Your task to perform on an android device: toggle javascript in the chrome app Image 0: 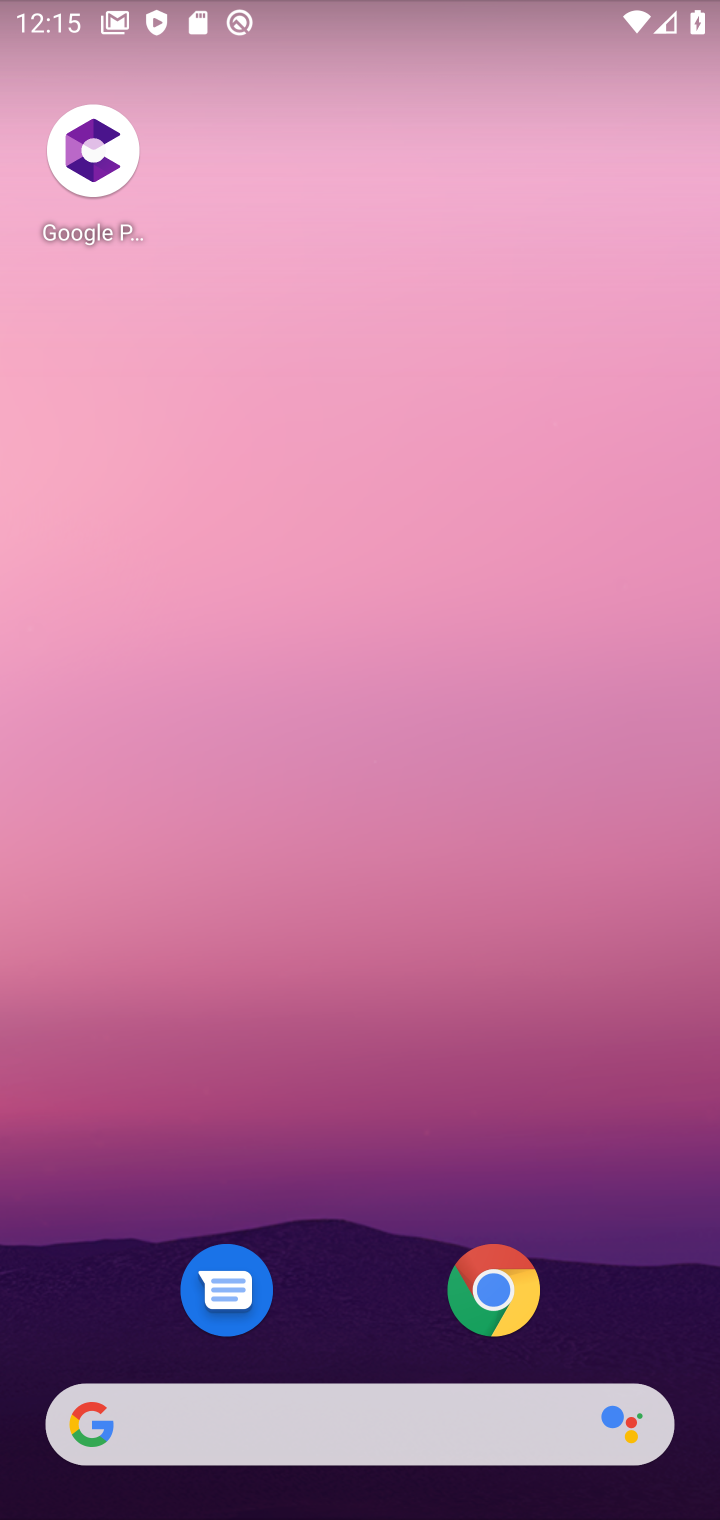
Step 0: click (501, 1280)
Your task to perform on an android device: toggle javascript in the chrome app Image 1: 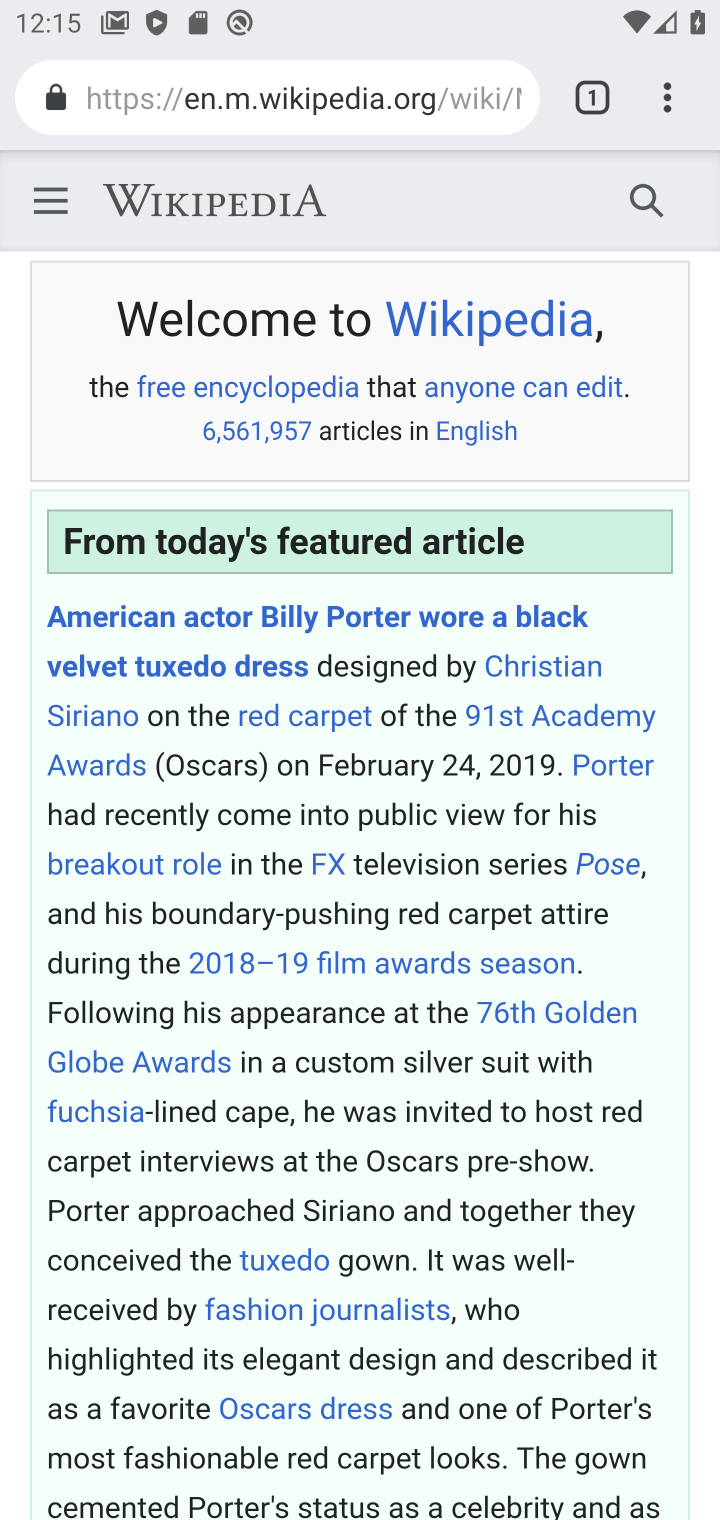
Step 1: click (683, 78)
Your task to perform on an android device: toggle javascript in the chrome app Image 2: 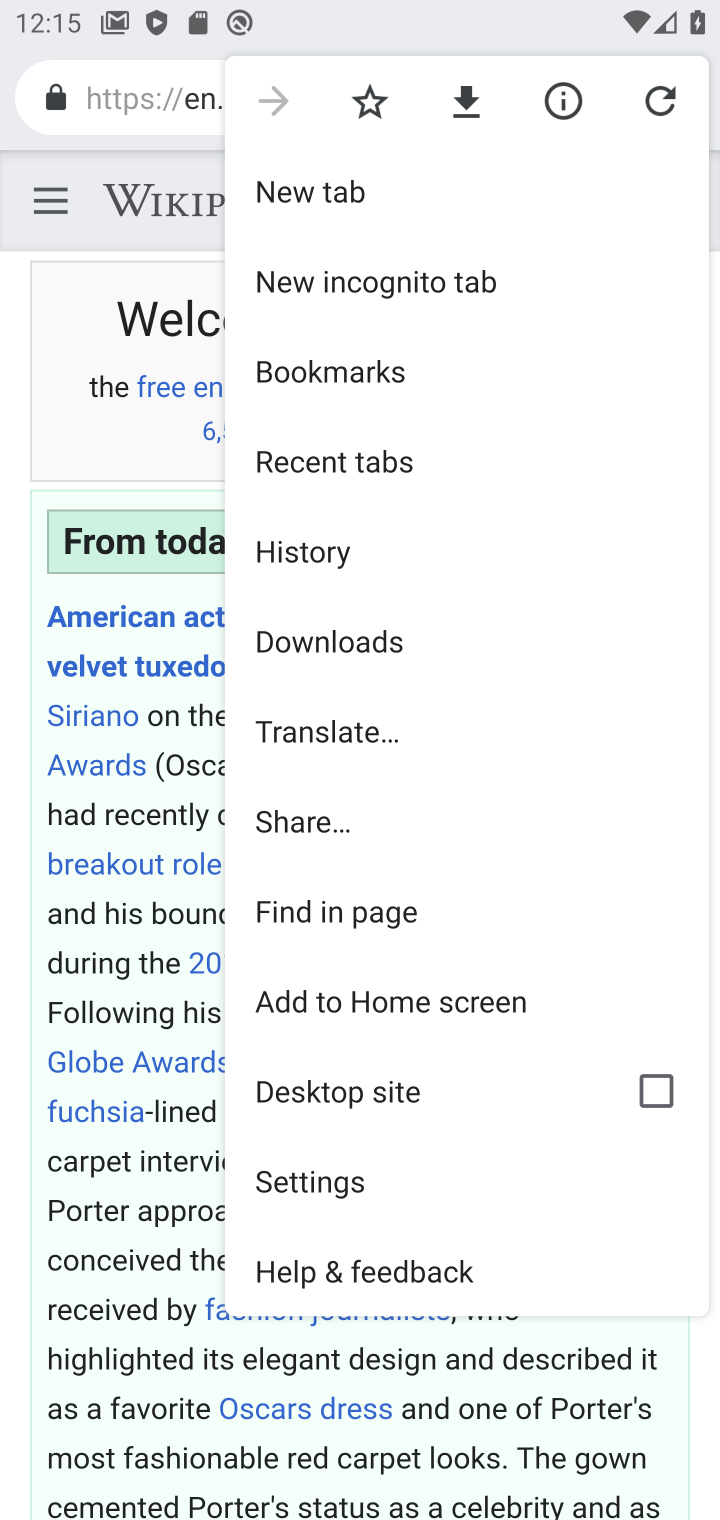
Step 2: click (318, 1175)
Your task to perform on an android device: toggle javascript in the chrome app Image 3: 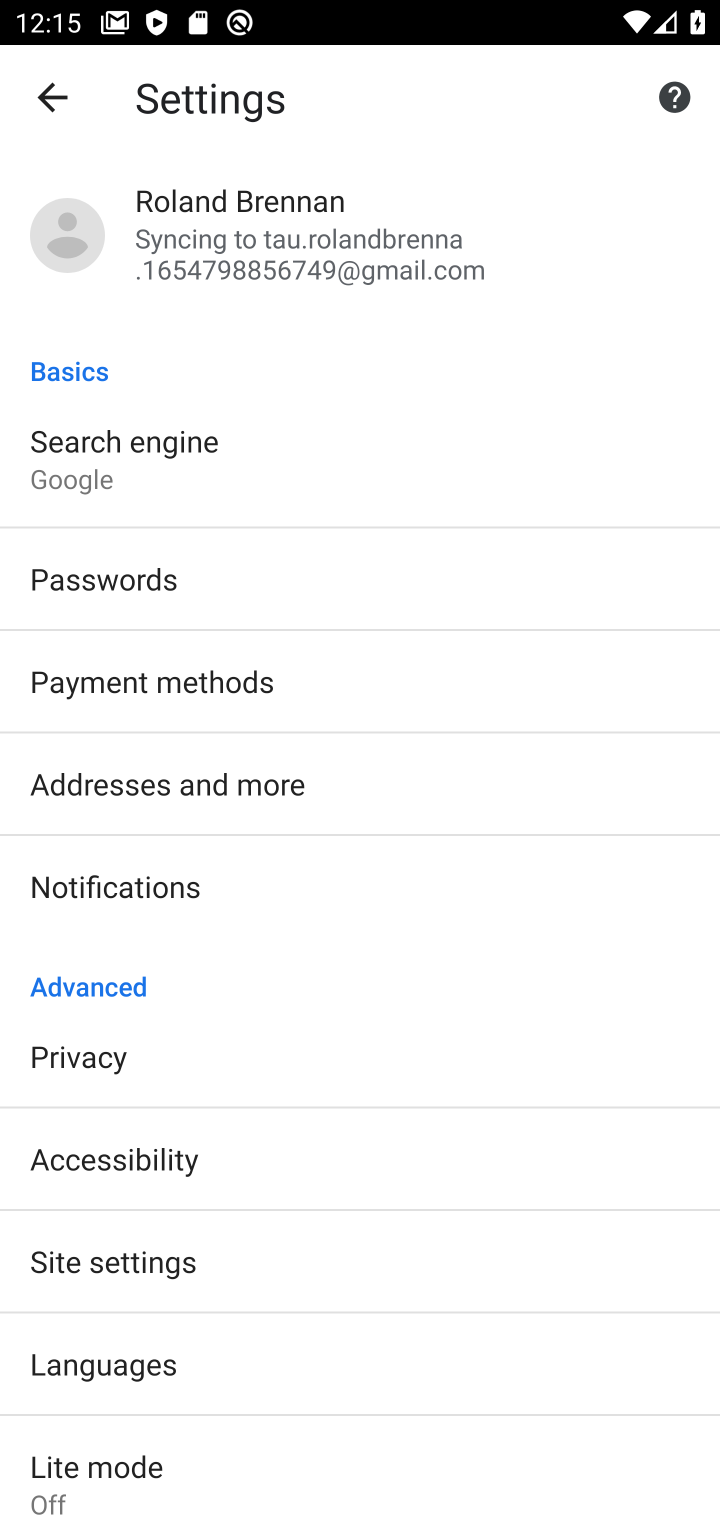
Step 3: click (301, 1238)
Your task to perform on an android device: toggle javascript in the chrome app Image 4: 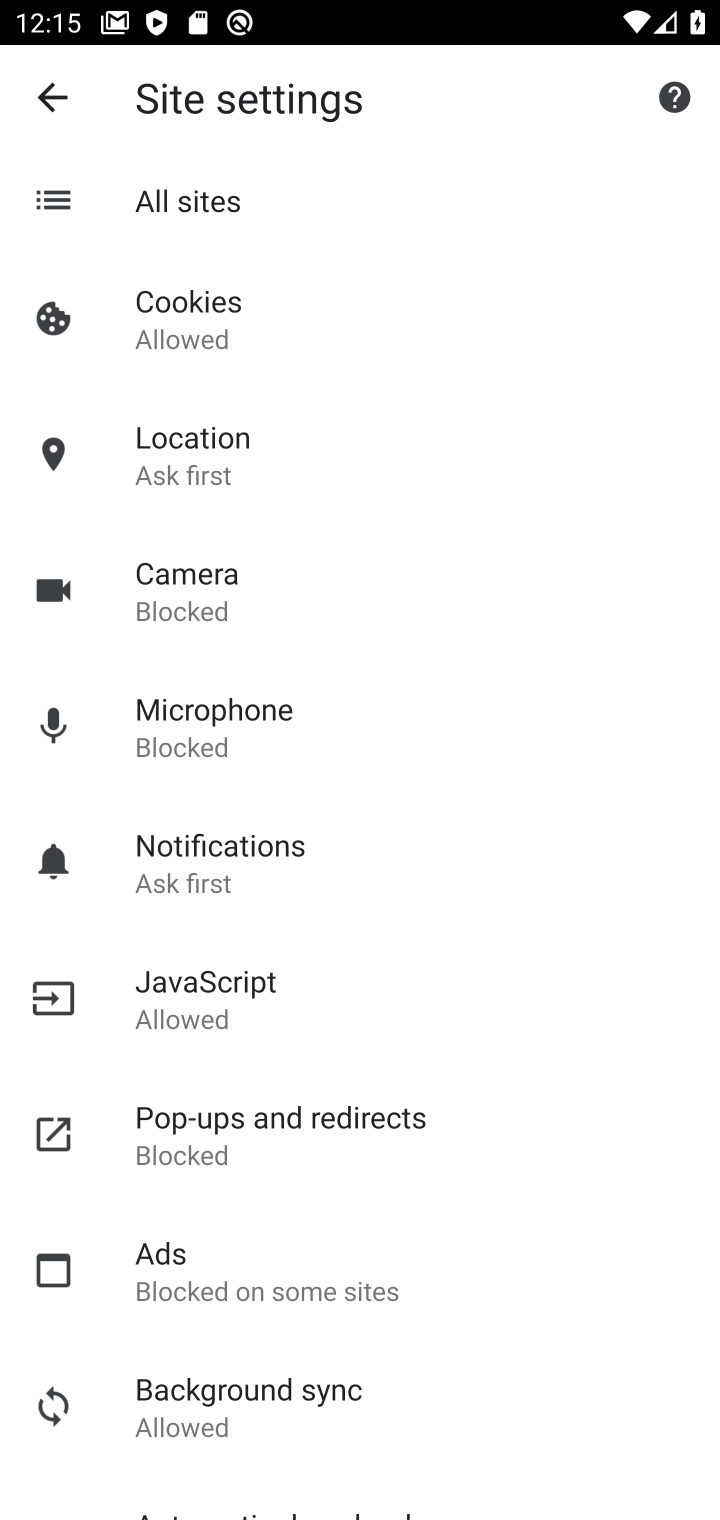
Step 4: click (313, 993)
Your task to perform on an android device: toggle javascript in the chrome app Image 5: 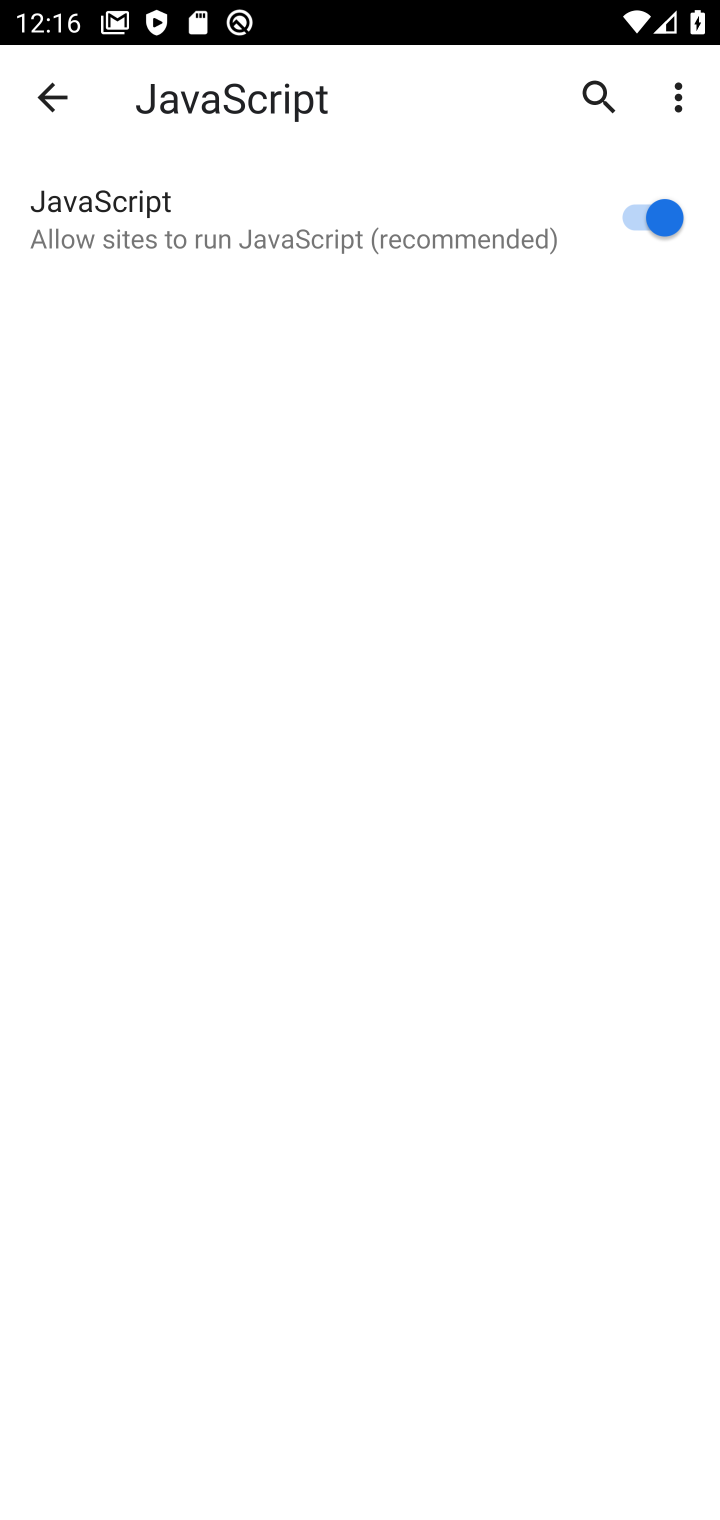
Step 5: click (656, 197)
Your task to perform on an android device: toggle javascript in the chrome app Image 6: 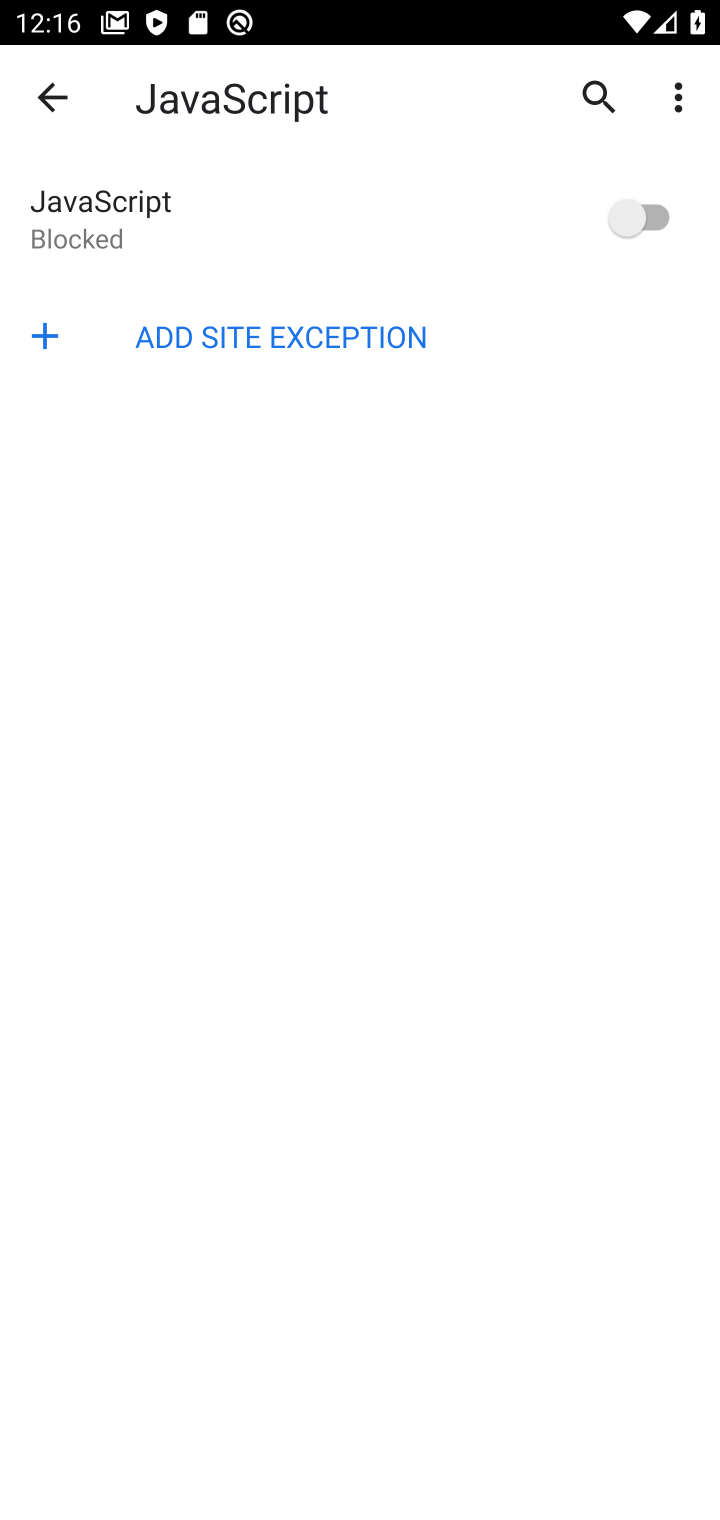
Step 6: task complete